Your task to perform on an android device: Go to Maps Image 0: 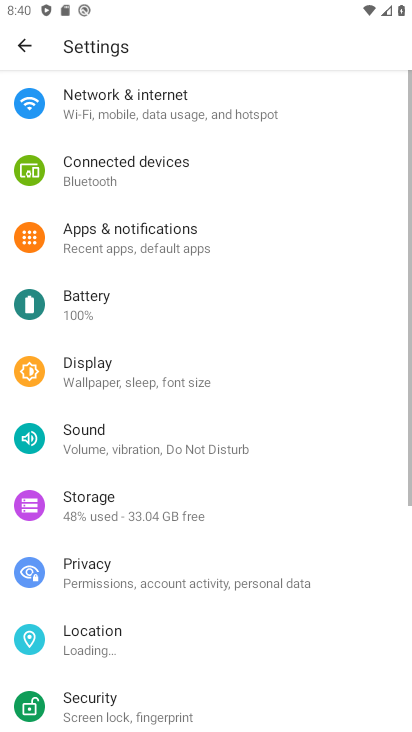
Step 0: press home button
Your task to perform on an android device: Go to Maps Image 1: 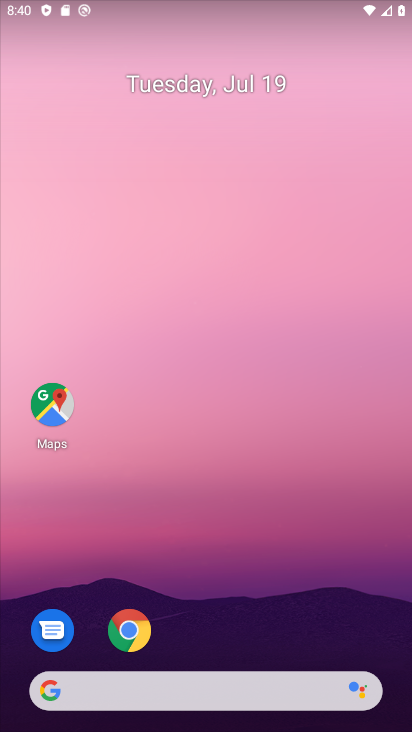
Step 1: click (52, 408)
Your task to perform on an android device: Go to Maps Image 2: 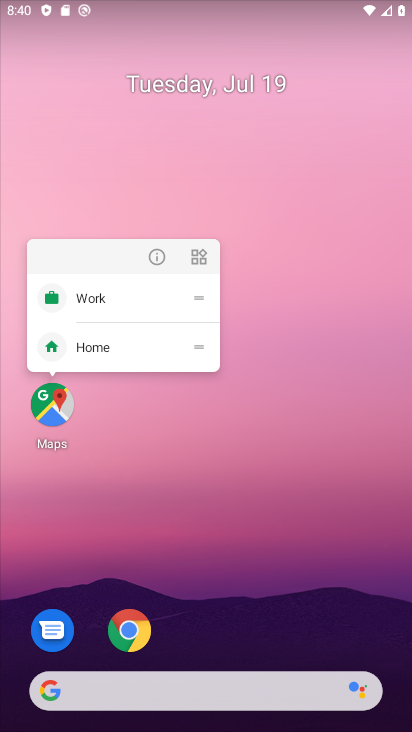
Step 2: click (47, 409)
Your task to perform on an android device: Go to Maps Image 3: 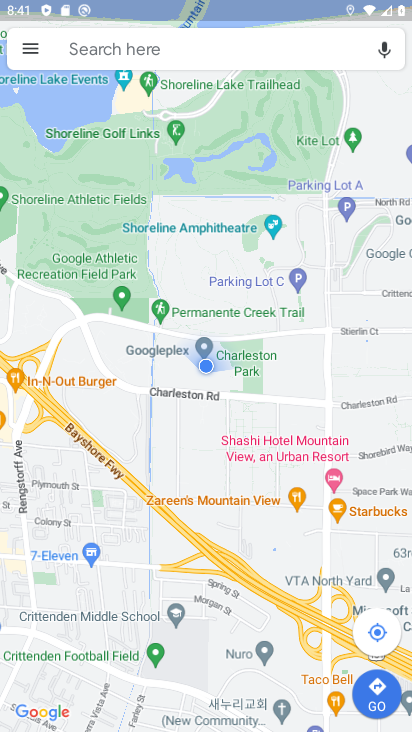
Step 3: task complete